Your task to perform on an android device: Open Chrome and go to settings Image 0: 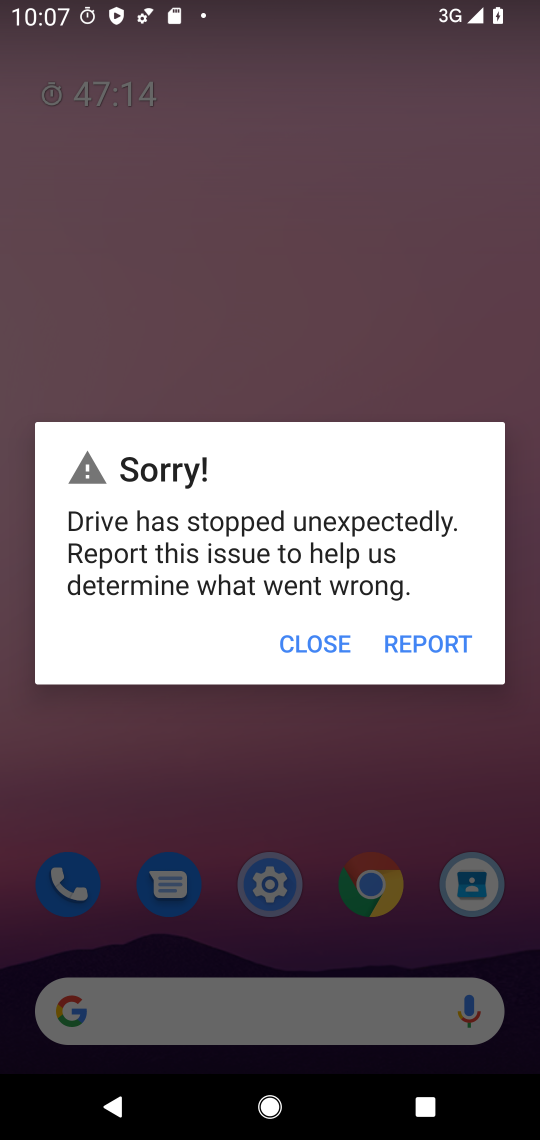
Step 0: click (309, 633)
Your task to perform on an android device: Open Chrome and go to settings Image 1: 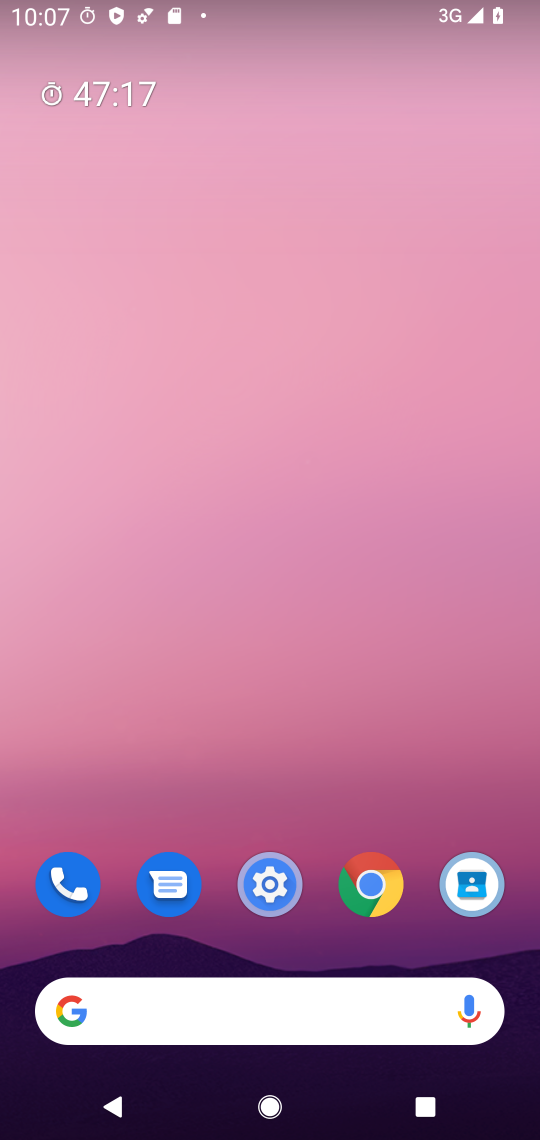
Step 1: click (364, 894)
Your task to perform on an android device: Open Chrome and go to settings Image 2: 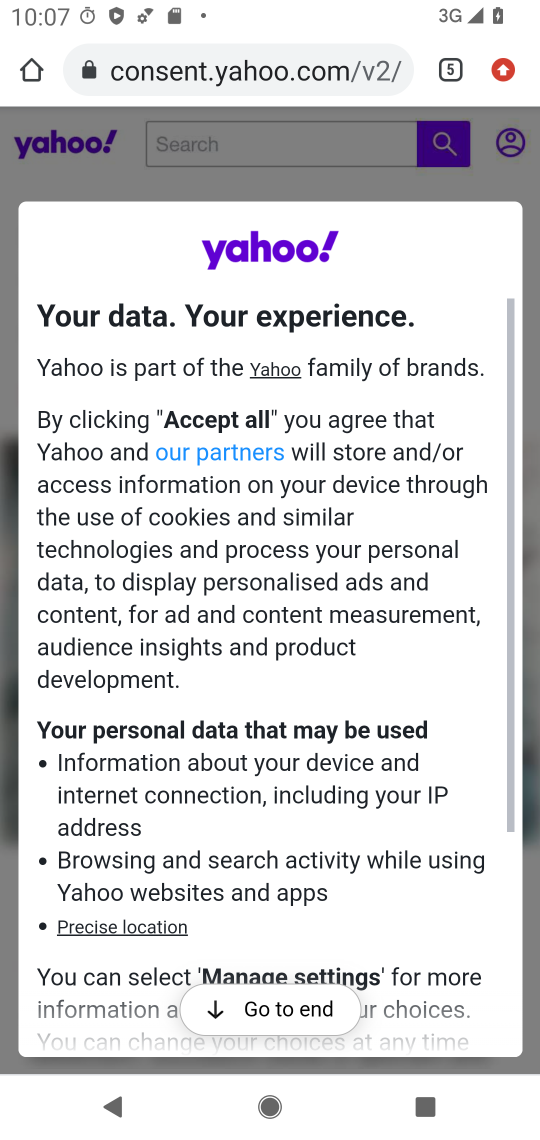
Step 2: click (500, 69)
Your task to perform on an android device: Open Chrome and go to settings Image 3: 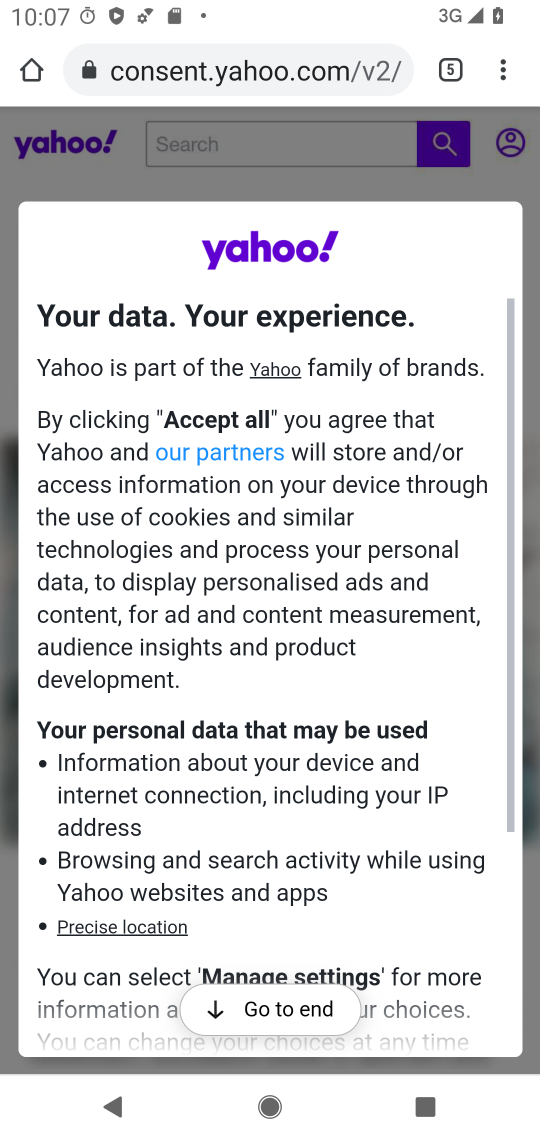
Step 3: click (500, 71)
Your task to perform on an android device: Open Chrome and go to settings Image 4: 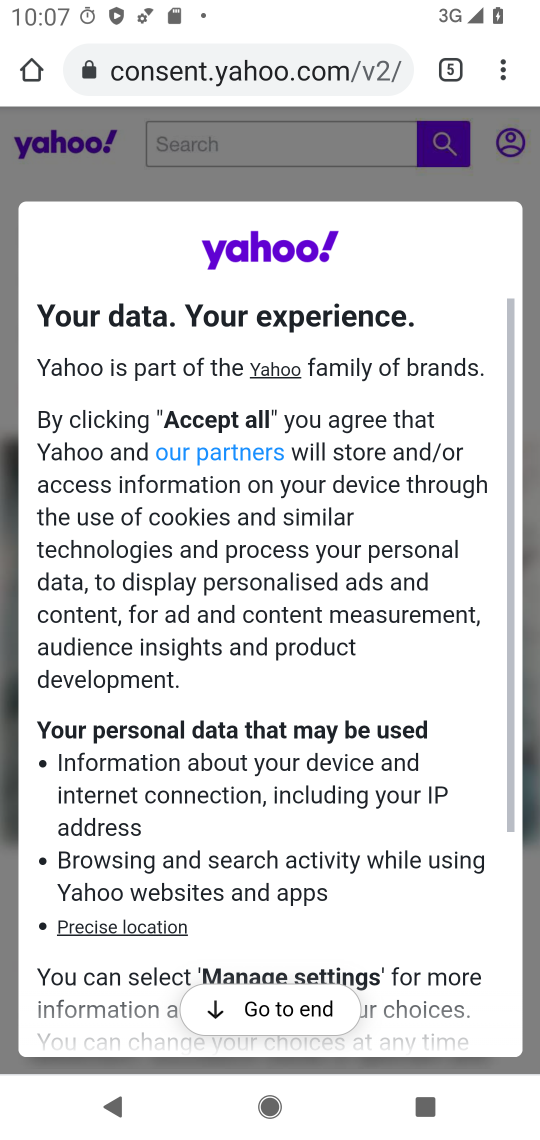
Step 4: task complete